Your task to perform on an android device: Find coffee shops on Maps Image 0: 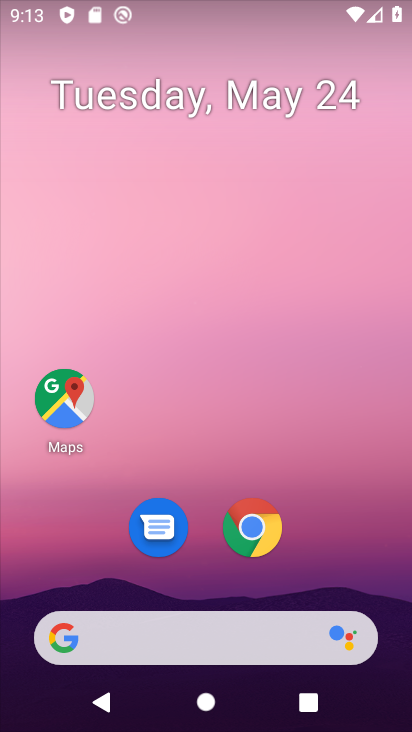
Step 0: click (65, 409)
Your task to perform on an android device: Find coffee shops on Maps Image 1: 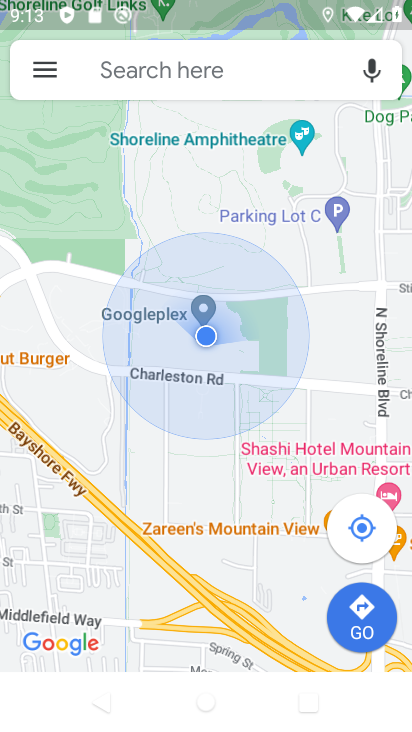
Step 1: click (181, 71)
Your task to perform on an android device: Find coffee shops on Maps Image 2: 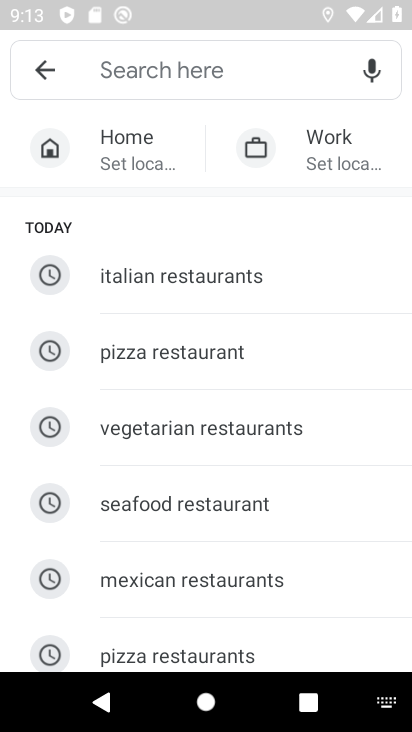
Step 2: type "coffe"
Your task to perform on an android device: Find coffee shops on Maps Image 3: 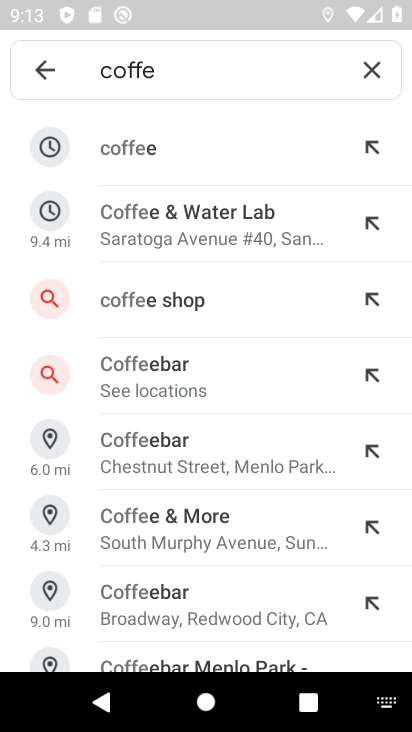
Step 3: click (181, 303)
Your task to perform on an android device: Find coffee shops on Maps Image 4: 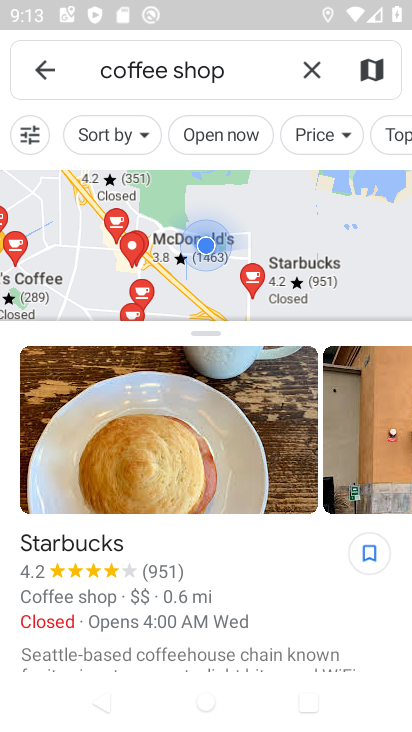
Step 4: task complete